Your task to perform on an android device: change your default location settings in chrome Image 0: 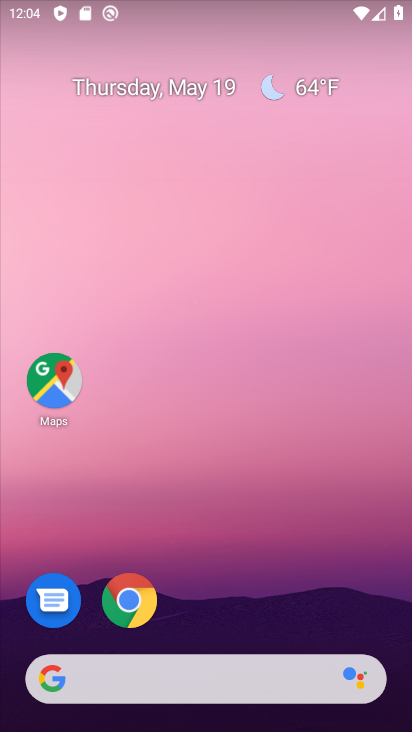
Step 0: drag from (191, 643) to (187, 67)
Your task to perform on an android device: change your default location settings in chrome Image 1: 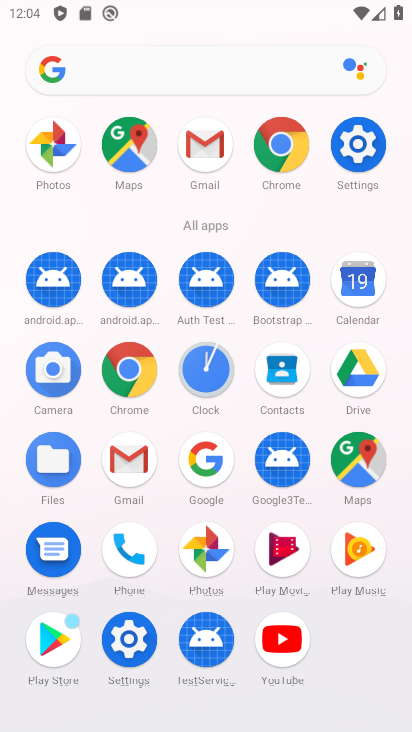
Step 1: click (268, 157)
Your task to perform on an android device: change your default location settings in chrome Image 2: 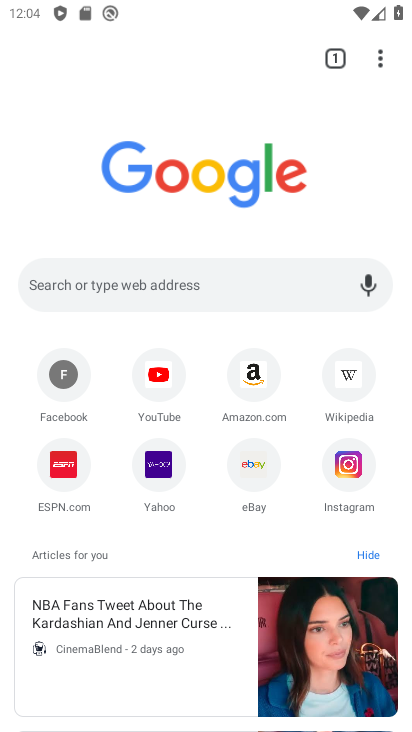
Step 2: click (377, 55)
Your task to perform on an android device: change your default location settings in chrome Image 3: 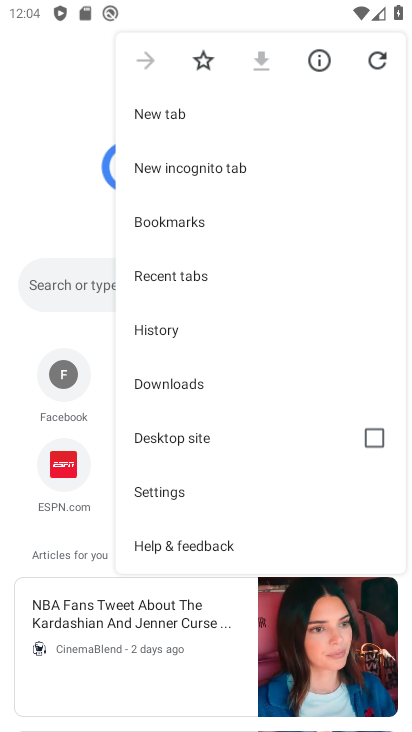
Step 3: click (178, 476)
Your task to perform on an android device: change your default location settings in chrome Image 4: 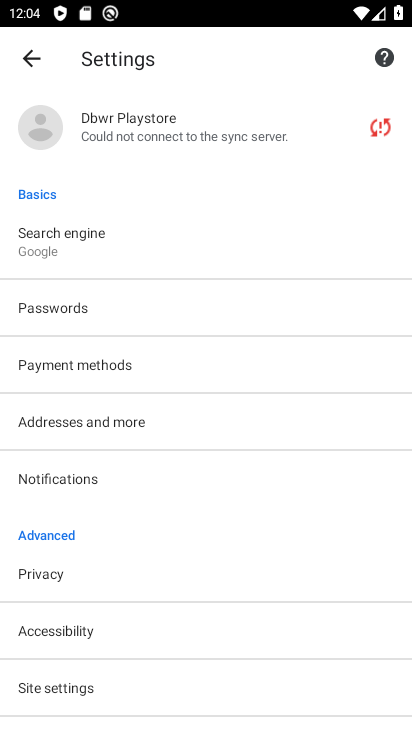
Step 4: drag from (193, 637) to (138, 345)
Your task to perform on an android device: change your default location settings in chrome Image 5: 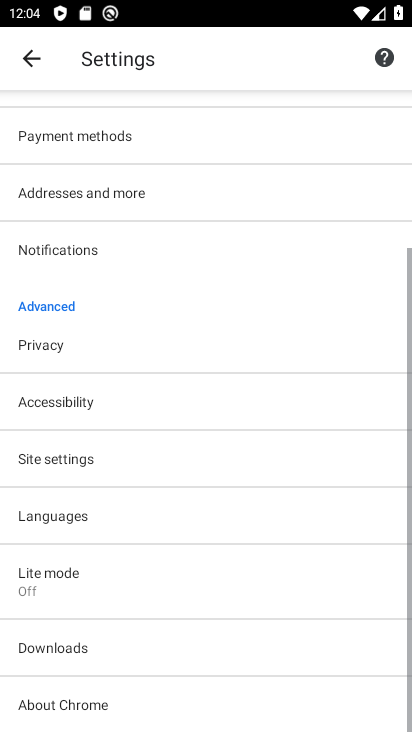
Step 5: drag from (109, 239) to (110, 434)
Your task to perform on an android device: change your default location settings in chrome Image 6: 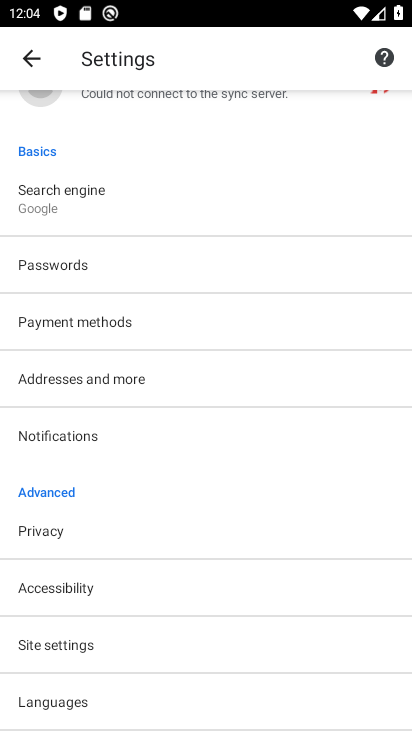
Step 6: drag from (107, 549) to (83, 250)
Your task to perform on an android device: change your default location settings in chrome Image 7: 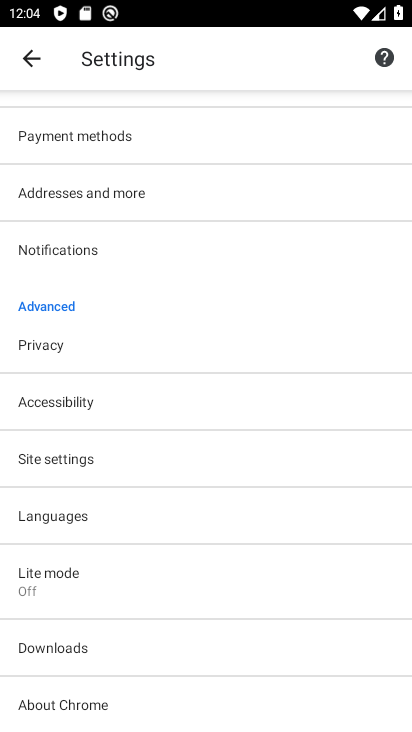
Step 7: click (82, 461)
Your task to perform on an android device: change your default location settings in chrome Image 8: 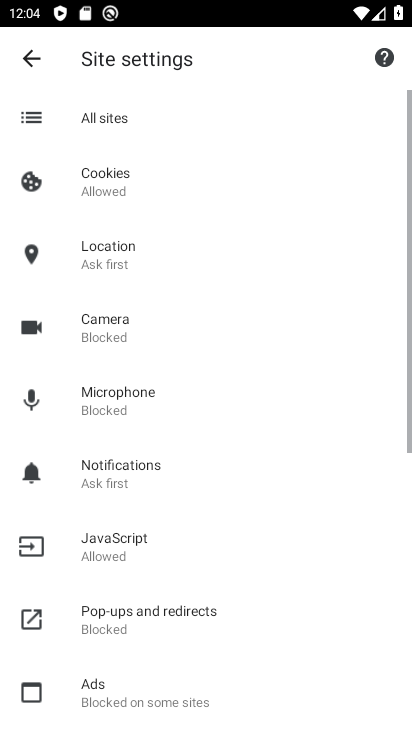
Step 8: click (102, 251)
Your task to perform on an android device: change your default location settings in chrome Image 9: 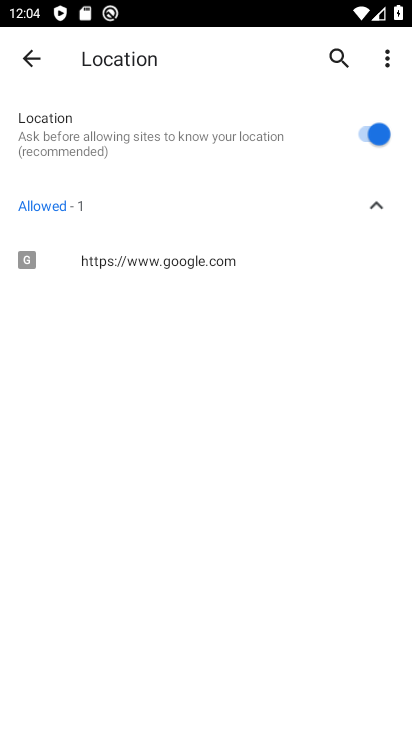
Step 9: click (368, 130)
Your task to perform on an android device: change your default location settings in chrome Image 10: 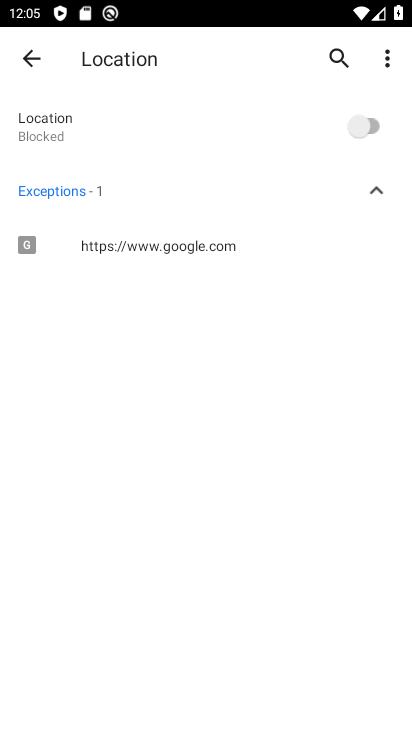
Step 10: task complete